Your task to perform on an android device: turn off location history Image 0: 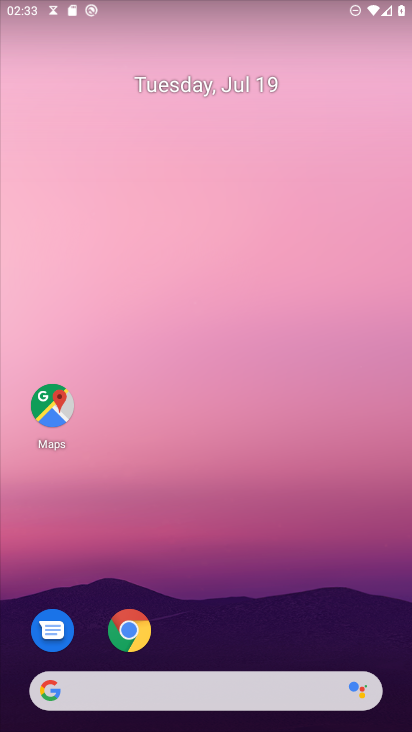
Step 0: press home button
Your task to perform on an android device: turn off location history Image 1: 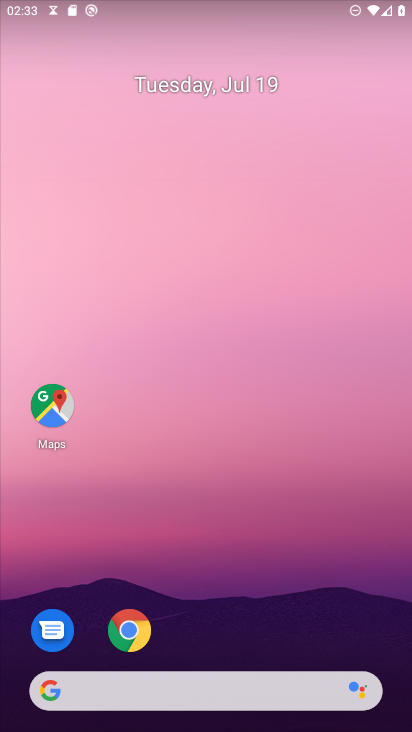
Step 1: drag from (167, 684) to (283, 113)
Your task to perform on an android device: turn off location history Image 2: 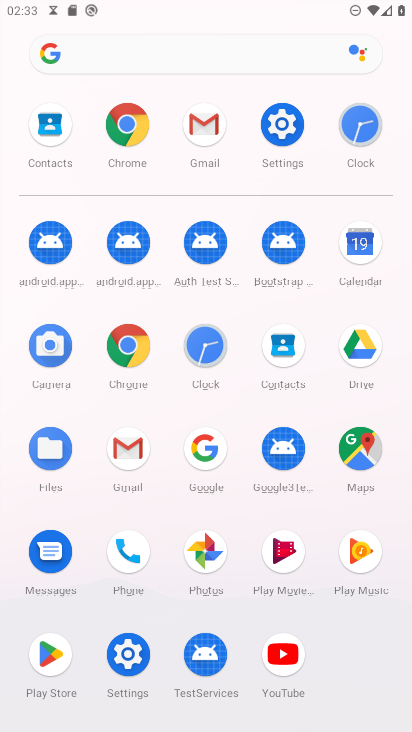
Step 2: click (373, 452)
Your task to perform on an android device: turn off location history Image 3: 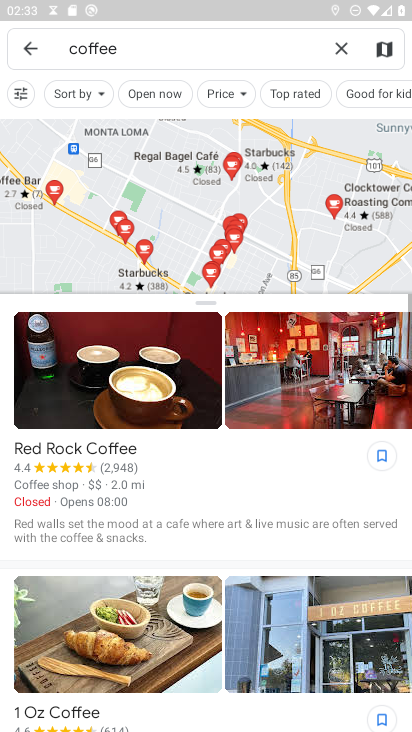
Step 3: click (25, 45)
Your task to perform on an android device: turn off location history Image 4: 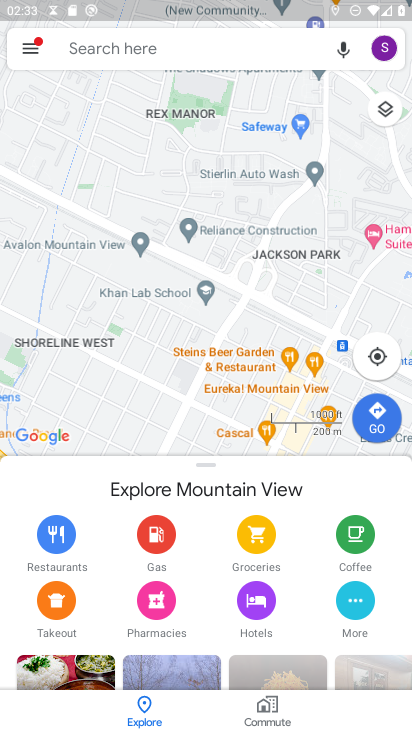
Step 4: click (30, 49)
Your task to perform on an android device: turn off location history Image 5: 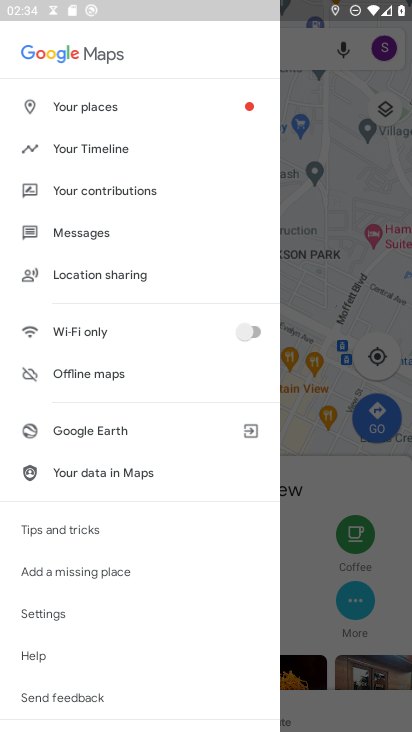
Step 5: click (119, 151)
Your task to perform on an android device: turn off location history Image 6: 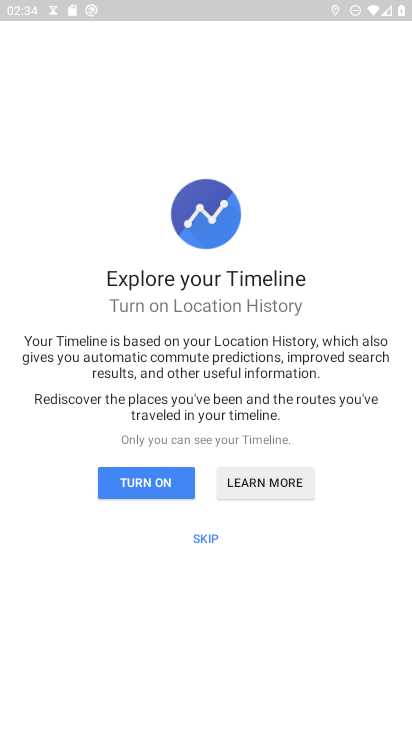
Step 6: click (198, 537)
Your task to perform on an android device: turn off location history Image 7: 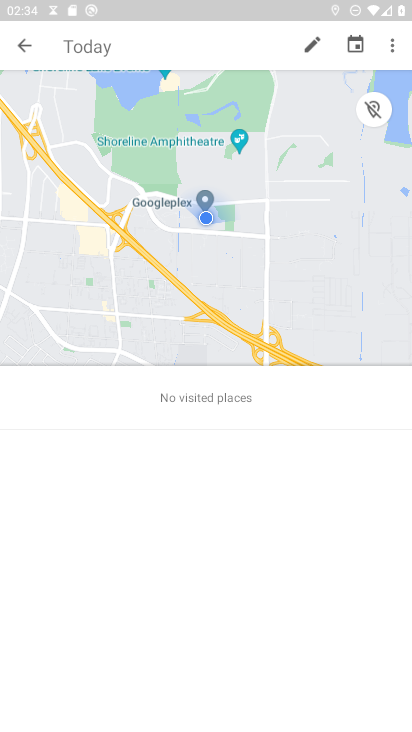
Step 7: click (392, 45)
Your task to perform on an android device: turn off location history Image 8: 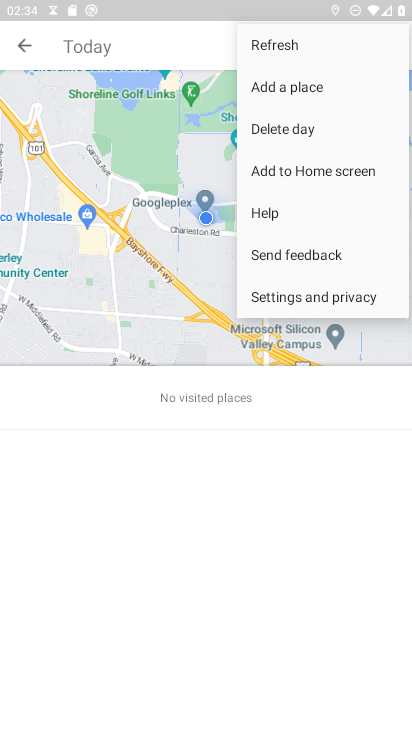
Step 8: click (311, 296)
Your task to perform on an android device: turn off location history Image 9: 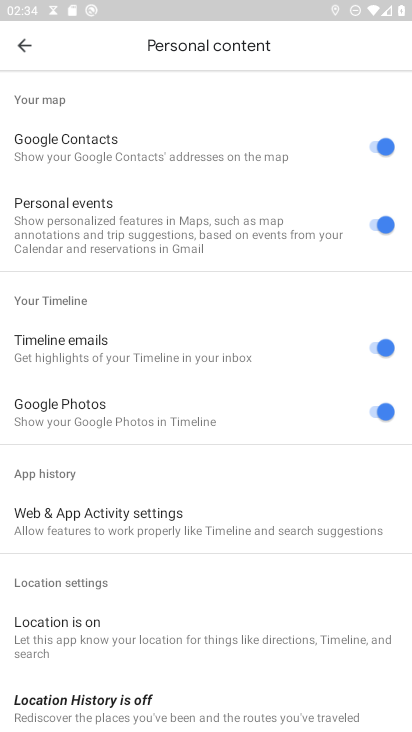
Step 9: drag from (146, 610) to (291, 222)
Your task to perform on an android device: turn off location history Image 10: 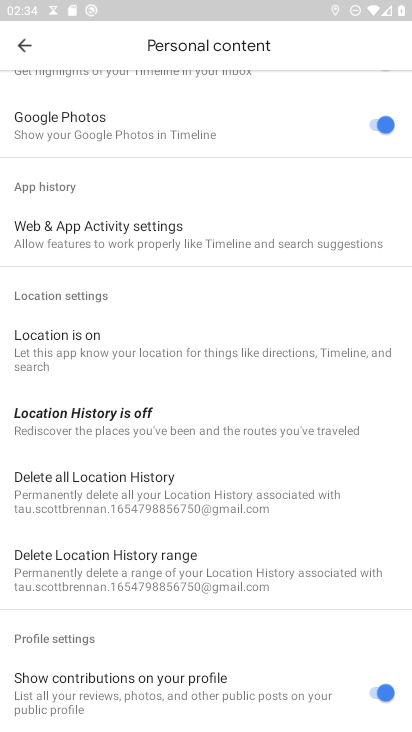
Step 10: click (136, 427)
Your task to perform on an android device: turn off location history Image 11: 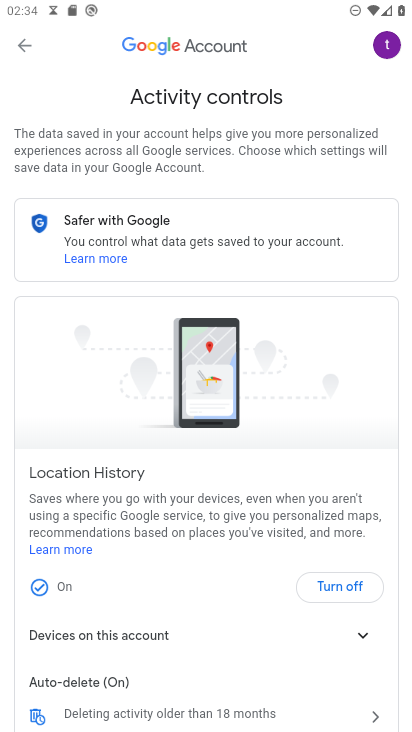
Step 11: click (328, 594)
Your task to perform on an android device: turn off location history Image 12: 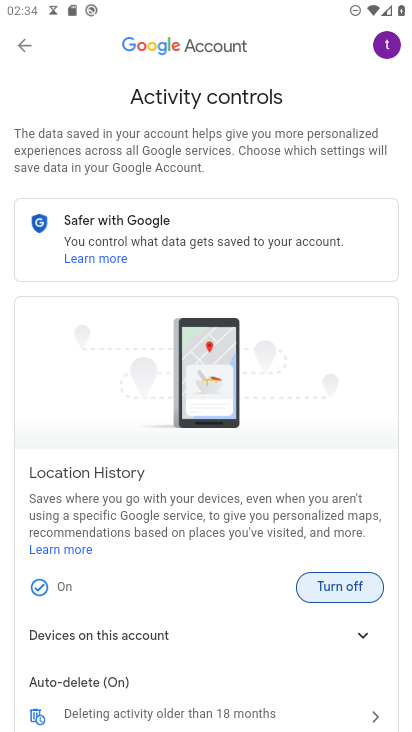
Step 12: click (334, 586)
Your task to perform on an android device: turn off location history Image 13: 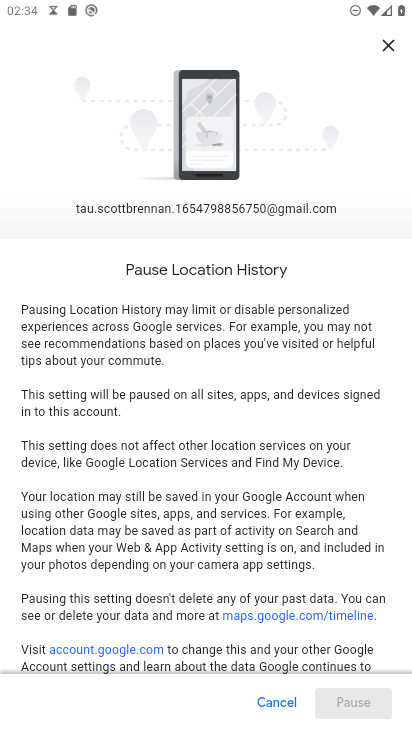
Step 13: drag from (225, 603) to (310, 198)
Your task to perform on an android device: turn off location history Image 14: 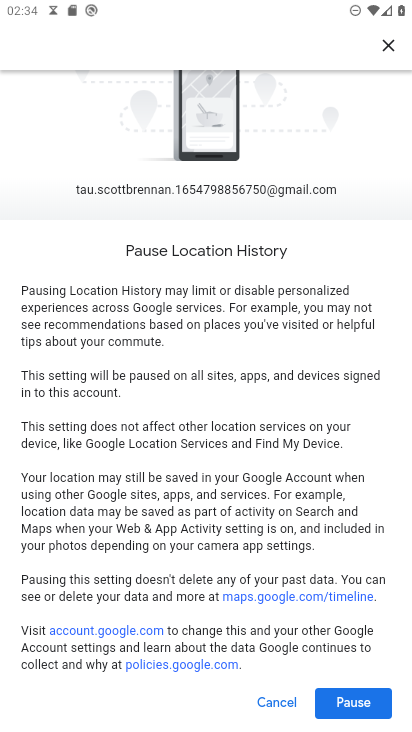
Step 14: click (355, 706)
Your task to perform on an android device: turn off location history Image 15: 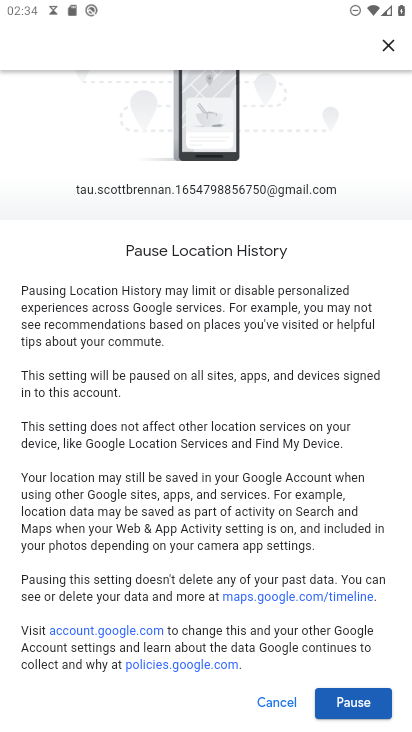
Step 15: click (349, 699)
Your task to perform on an android device: turn off location history Image 16: 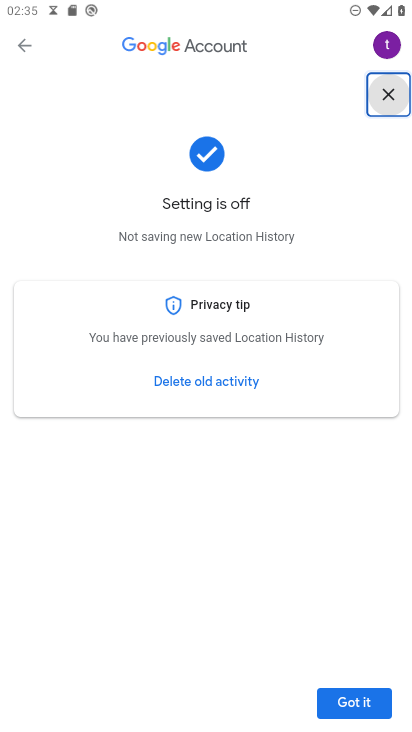
Step 16: click (349, 700)
Your task to perform on an android device: turn off location history Image 17: 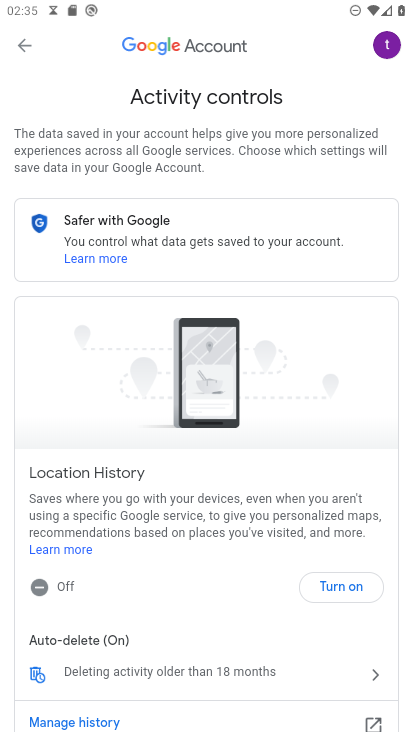
Step 17: task complete